Your task to perform on an android device: Go to Yahoo.com Image 0: 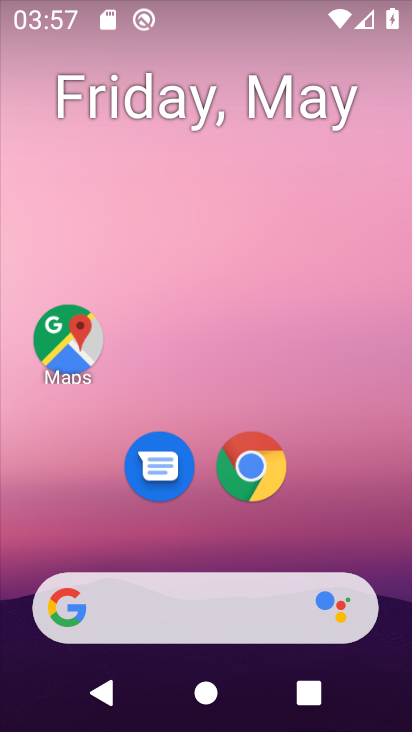
Step 0: click (256, 463)
Your task to perform on an android device: Go to Yahoo.com Image 1: 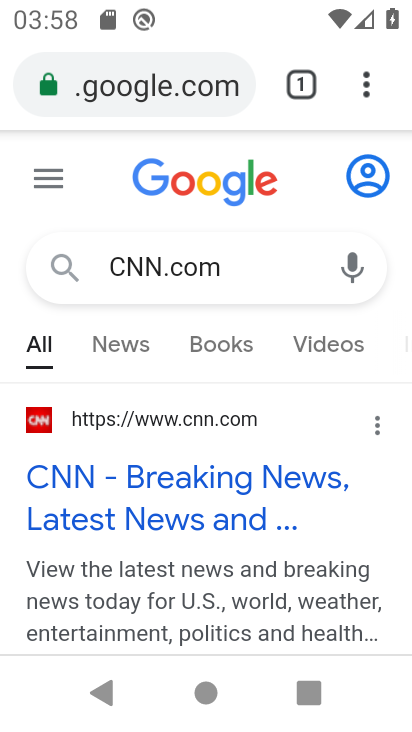
Step 1: click (239, 82)
Your task to perform on an android device: Go to Yahoo.com Image 2: 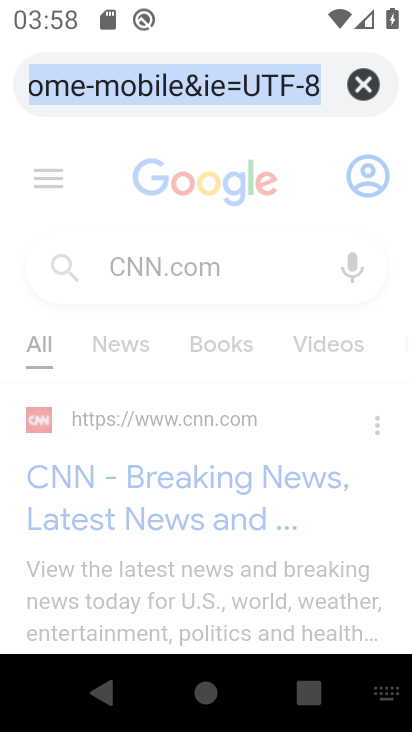
Step 2: click (356, 83)
Your task to perform on an android device: Go to Yahoo.com Image 3: 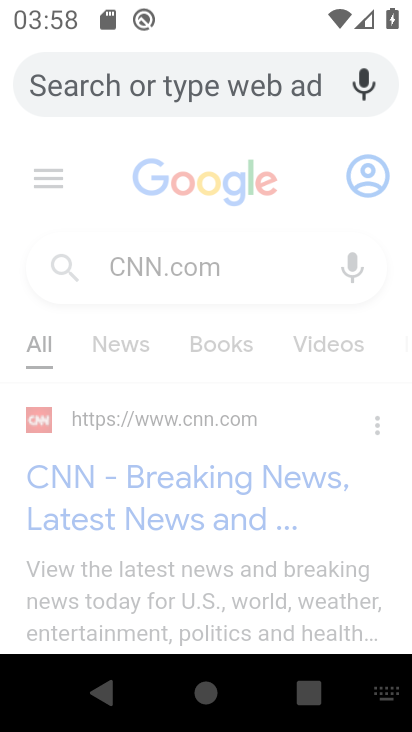
Step 3: type "Yahoo.com"
Your task to perform on an android device: Go to Yahoo.com Image 4: 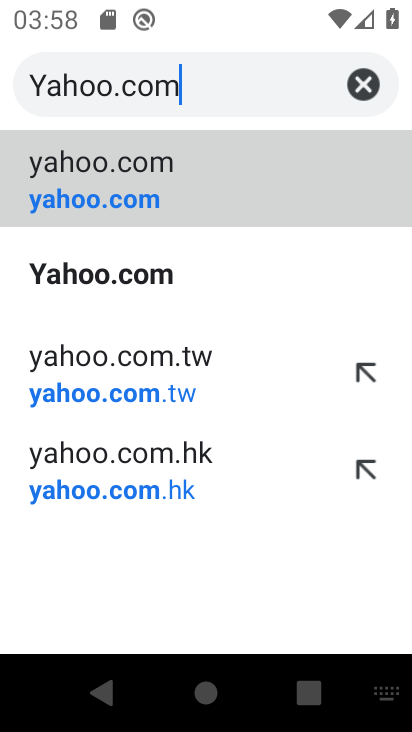
Step 4: click (155, 192)
Your task to perform on an android device: Go to Yahoo.com Image 5: 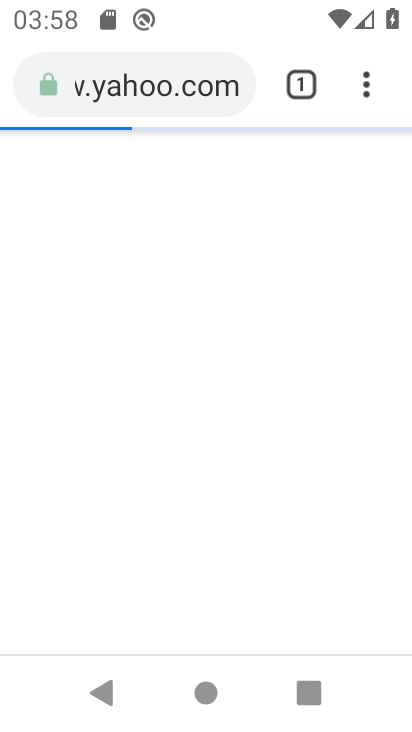
Step 5: task complete